Your task to perform on an android device: turn off smart reply in the gmail app Image 0: 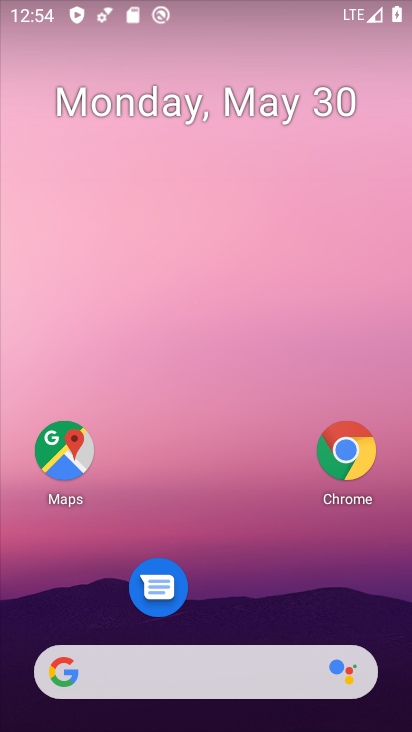
Step 0: drag from (243, 564) to (271, 44)
Your task to perform on an android device: turn off smart reply in the gmail app Image 1: 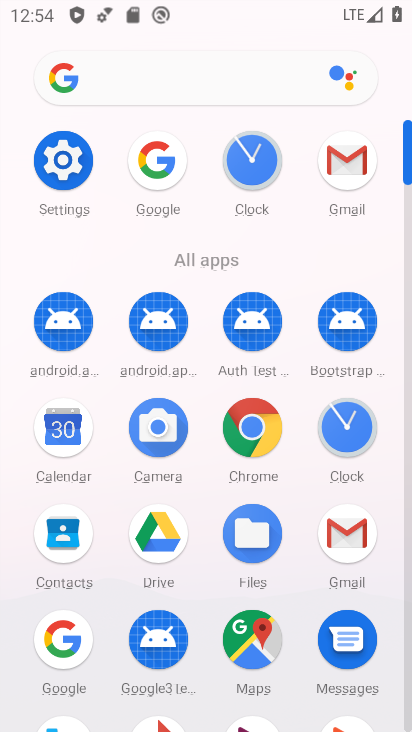
Step 1: click (356, 152)
Your task to perform on an android device: turn off smart reply in the gmail app Image 2: 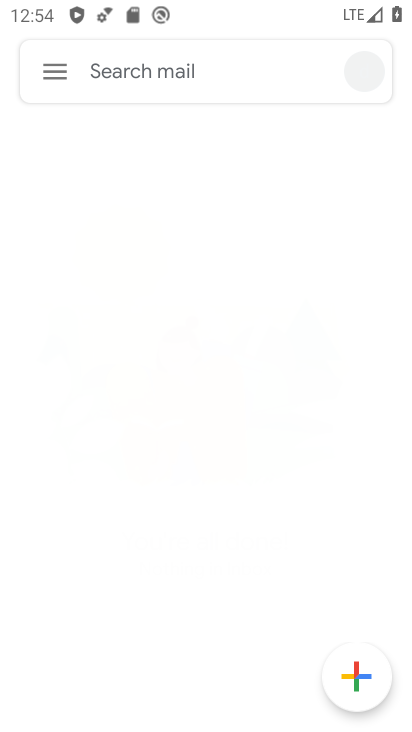
Step 2: click (51, 68)
Your task to perform on an android device: turn off smart reply in the gmail app Image 3: 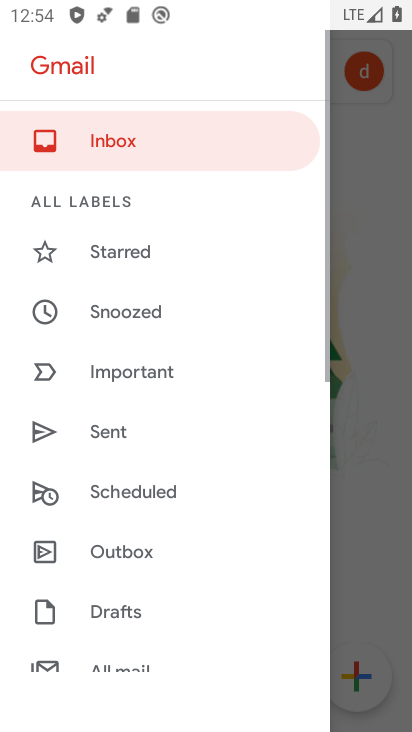
Step 3: drag from (143, 632) to (187, 65)
Your task to perform on an android device: turn off smart reply in the gmail app Image 4: 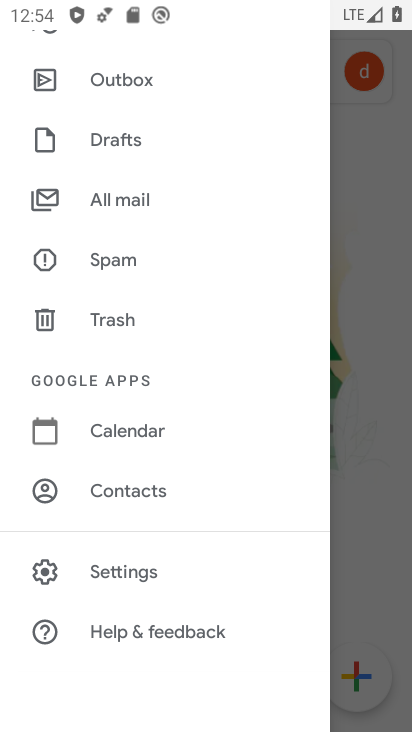
Step 4: click (107, 571)
Your task to perform on an android device: turn off smart reply in the gmail app Image 5: 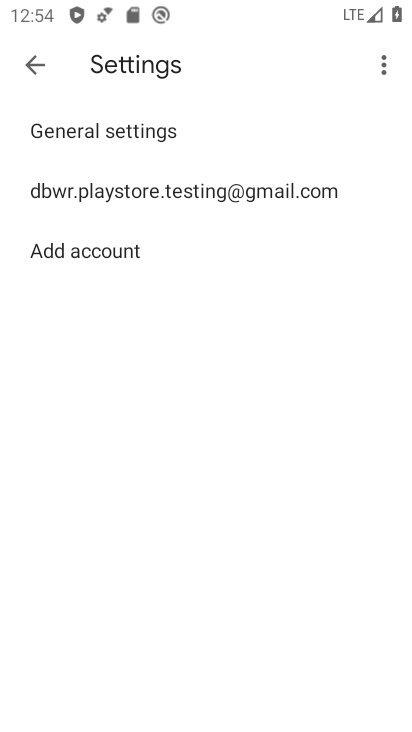
Step 5: click (130, 196)
Your task to perform on an android device: turn off smart reply in the gmail app Image 6: 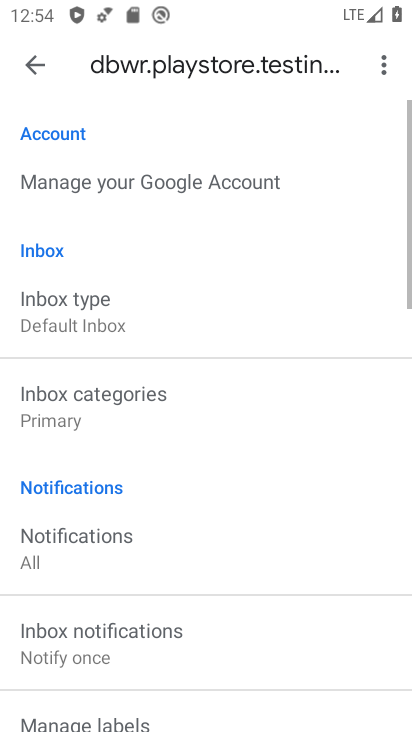
Step 6: drag from (193, 679) to (195, 182)
Your task to perform on an android device: turn off smart reply in the gmail app Image 7: 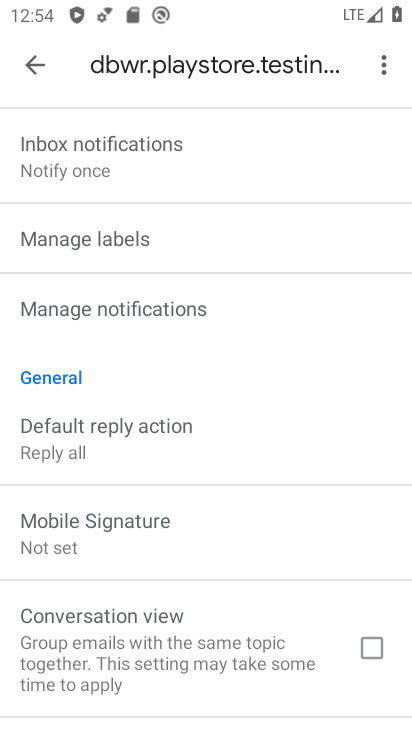
Step 7: drag from (216, 707) to (230, 276)
Your task to perform on an android device: turn off smart reply in the gmail app Image 8: 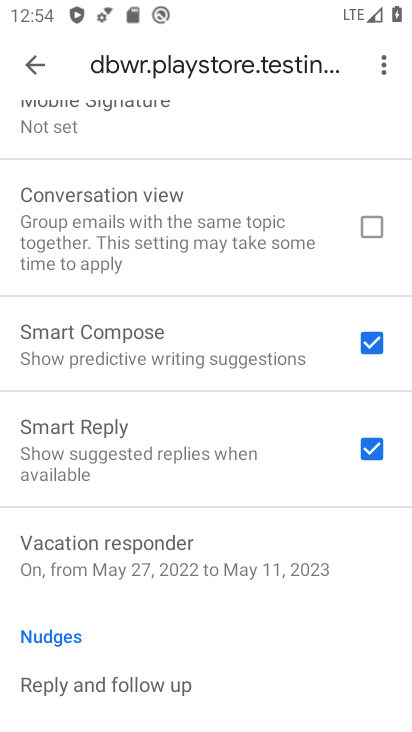
Step 8: click (382, 451)
Your task to perform on an android device: turn off smart reply in the gmail app Image 9: 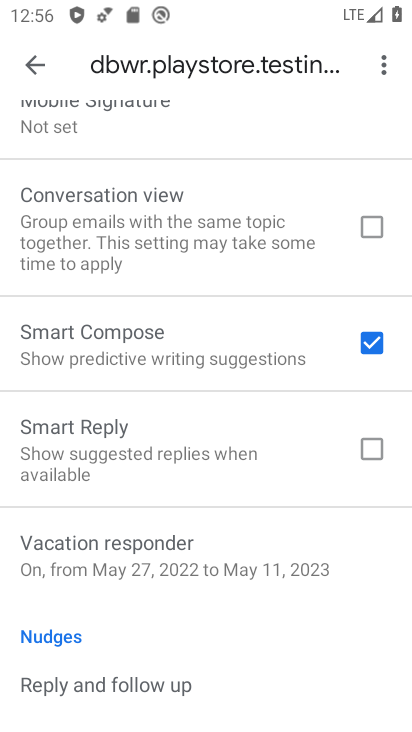
Step 9: task complete